Your task to perform on an android device: turn on priority inbox in the gmail app Image 0: 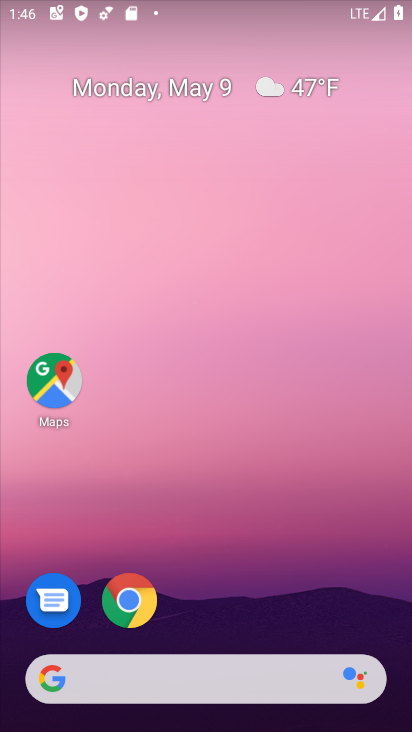
Step 0: drag from (231, 636) to (252, 107)
Your task to perform on an android device: turn on priority inbox in the gmail app Image 1: 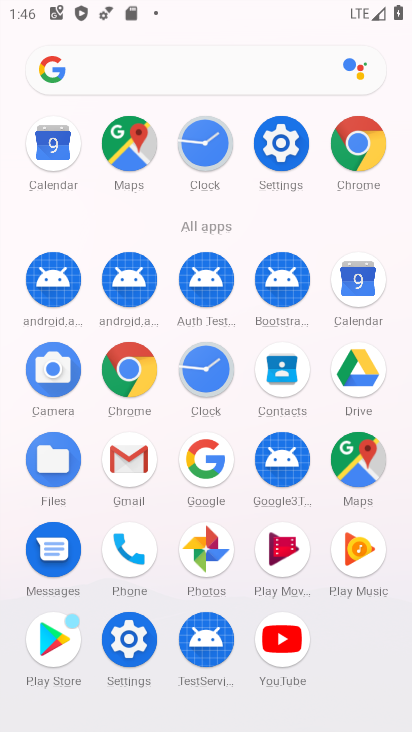
Step 1: click (125, 447)
Your task to perform on an android device: turn on priority inbox in the gmail app Image 2: 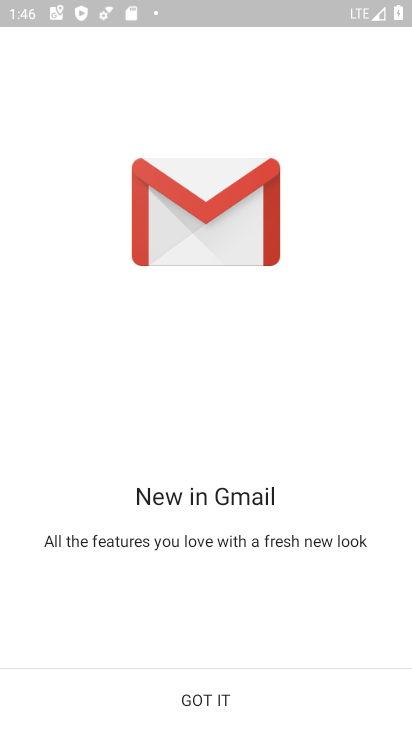
Step 2: click (210, 704)
Your task to perform on an android device: turn on priority inbox in the gmail app Image 3: 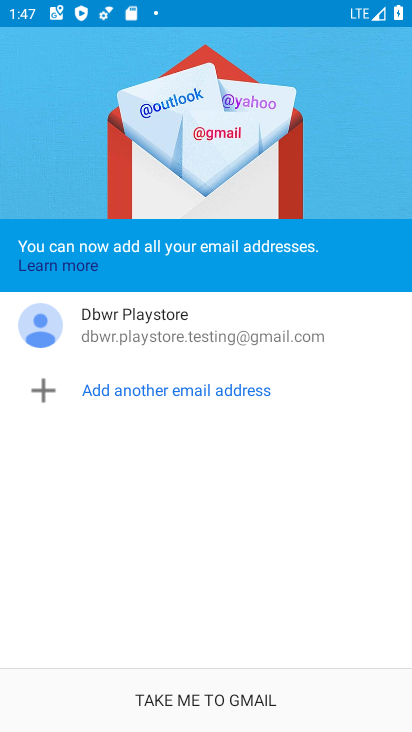
Step 3: click (218, 703)
Your task to perform on an android device: turn on priority inbox in the gmail app Image 4: 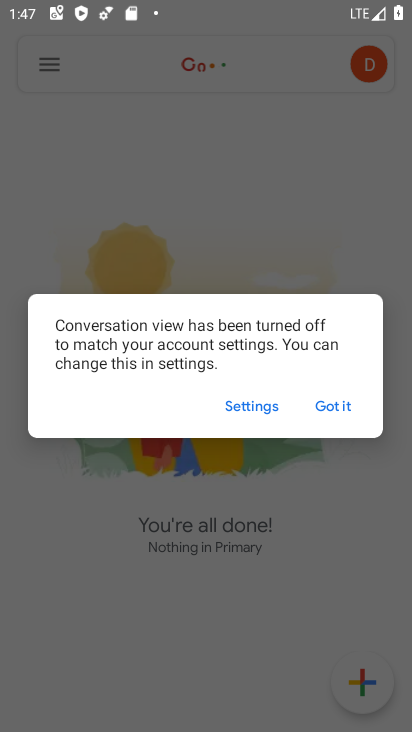
Step 4: click (322, 416)
Your task to perform on an android device: turn on priority inbox in the gmail app Image 5: 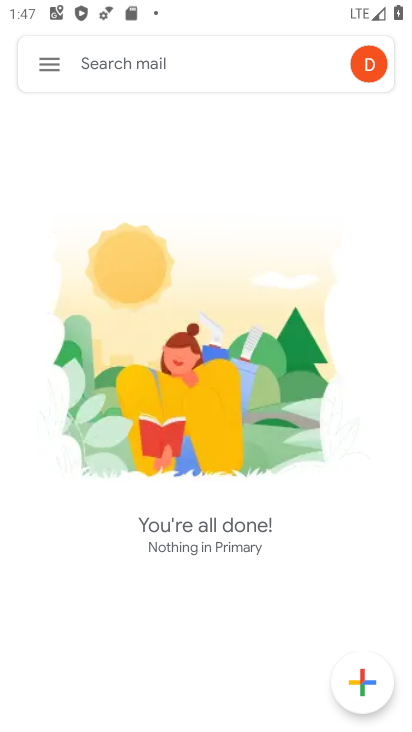
Step 5: click (40, 56)
Your task to perform on an android device: turn on priority inbox in the gmail app Image 6: 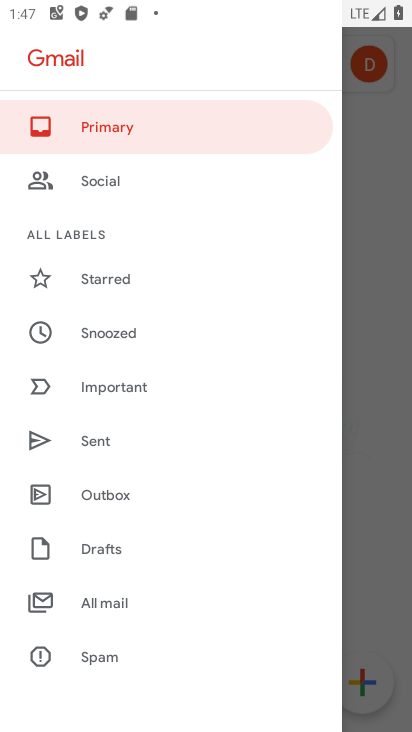
Step 6: drag from (132, 635) to (135, 100)
Your task to perform on an android device: turn on priority inbox in the gmail app Image 7: 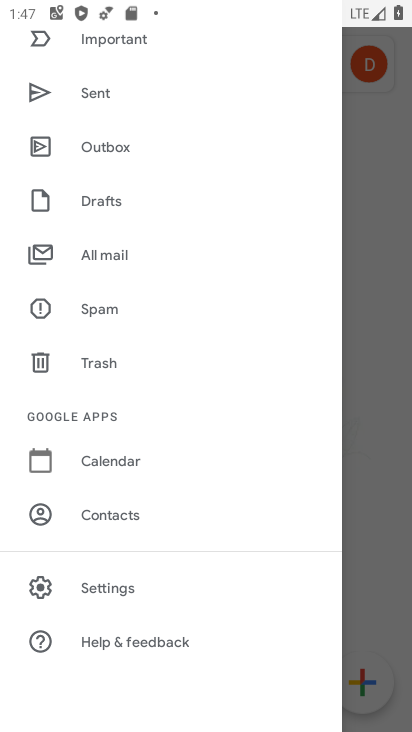
Step 7: click (145, 582)
Your task to perform on an android device: turn on priority inbox in the gmail app Image 8: 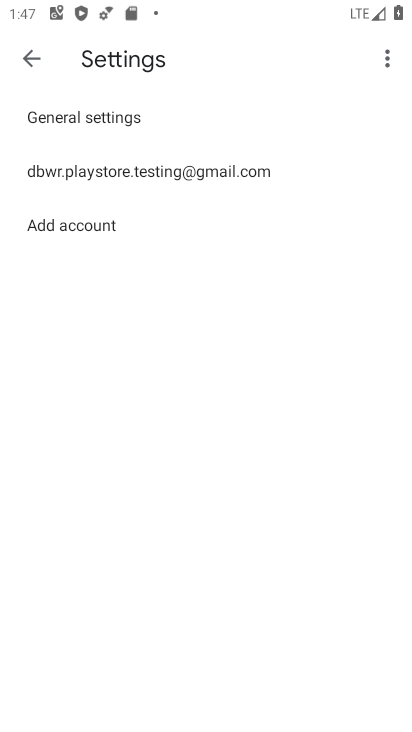
Step 8: click (202, 170)
Your task to perform on an android device: turn on priority inbox in the gmail app Image 9: 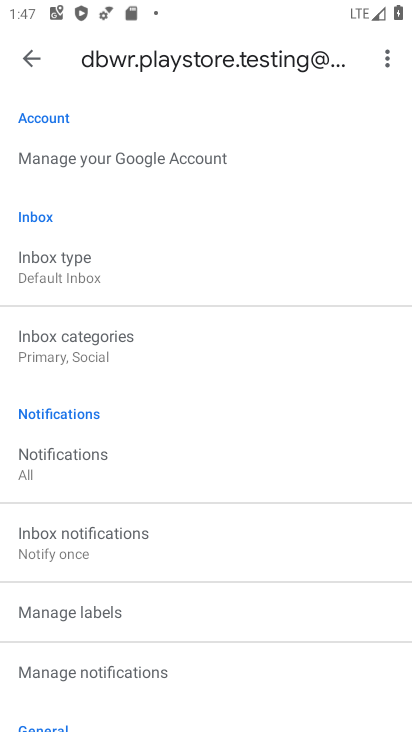
Step 9: click (115, 254)
Your task to perform on an android device: turn on priority inbox in the gmail app Image 10: 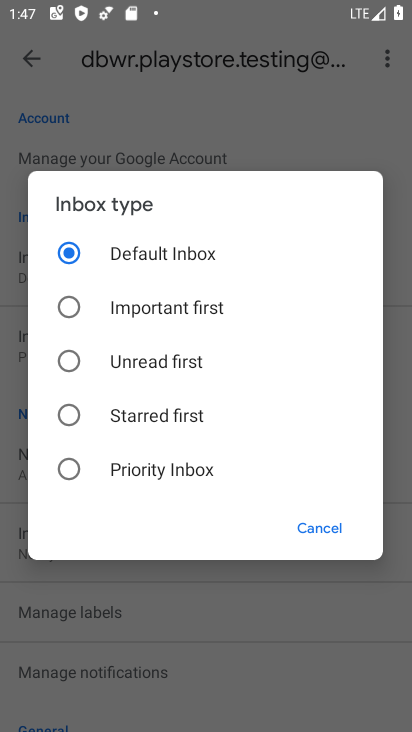
Step 10: click (70, 473)
Your task to perform on an android device: turn on priority inbox in the gmail app Image 11: 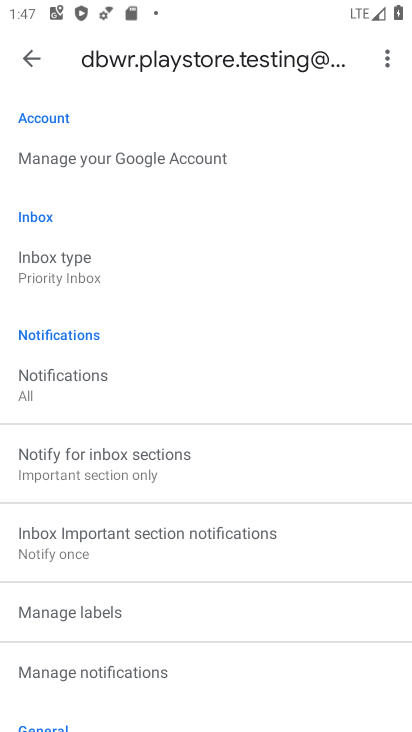
Step 11: task complete